Your task to perform on an android device: uninstall "Google Keep" Image 0: 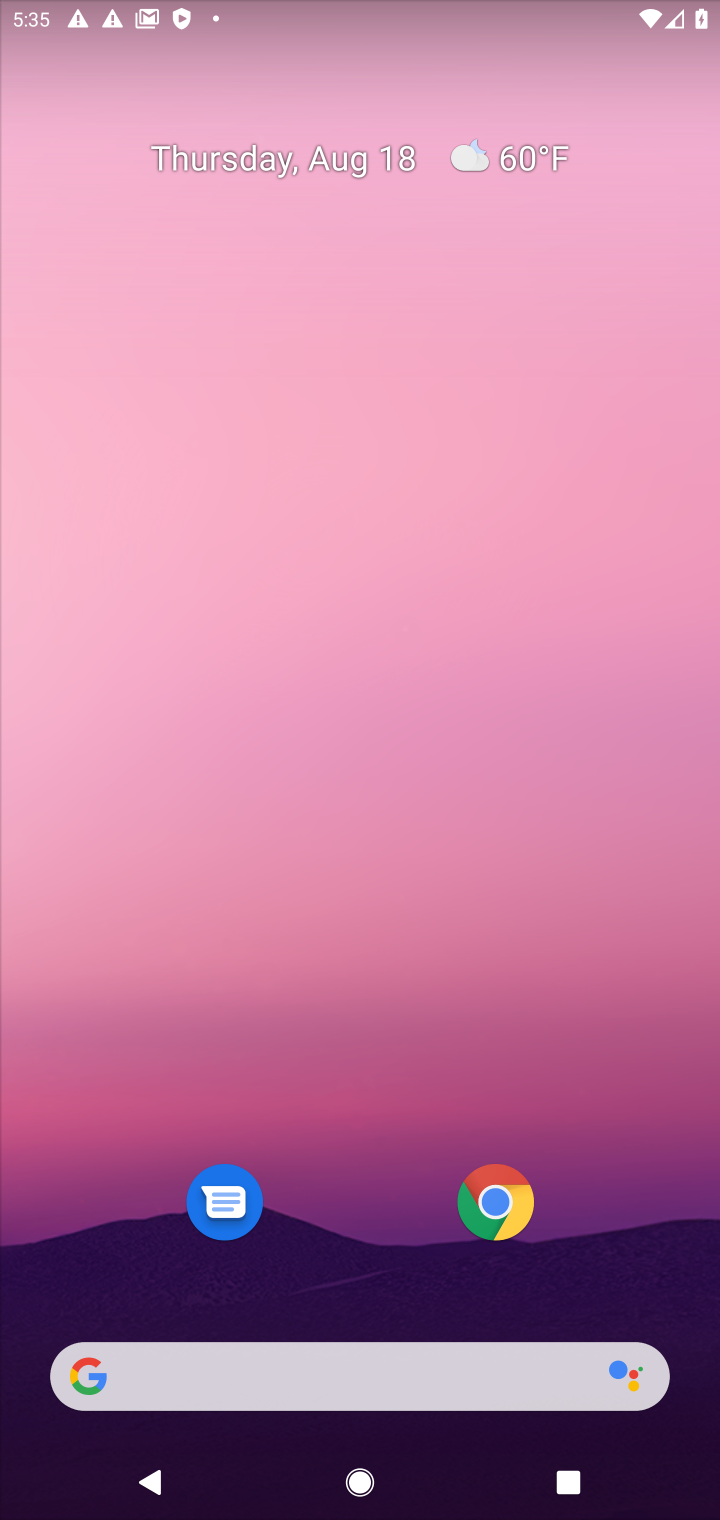
Step 0: drag from (294, 1409) to (306, 98)
Your task to perform on an android device: uninstall "Google Keep" Image 1: 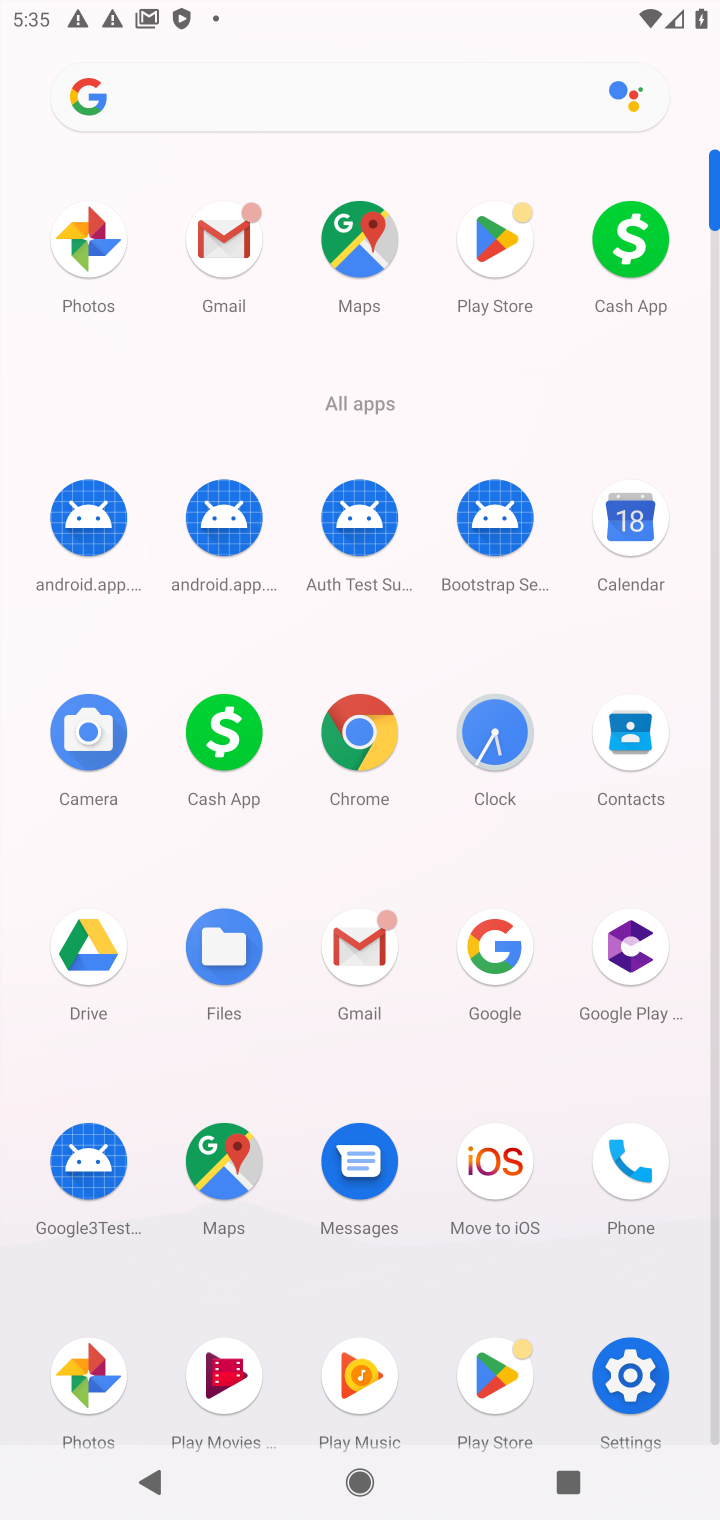
Step 1: click (460, 255)
Your task to perform on an android device: uninstall "Google Keep" Image 2: 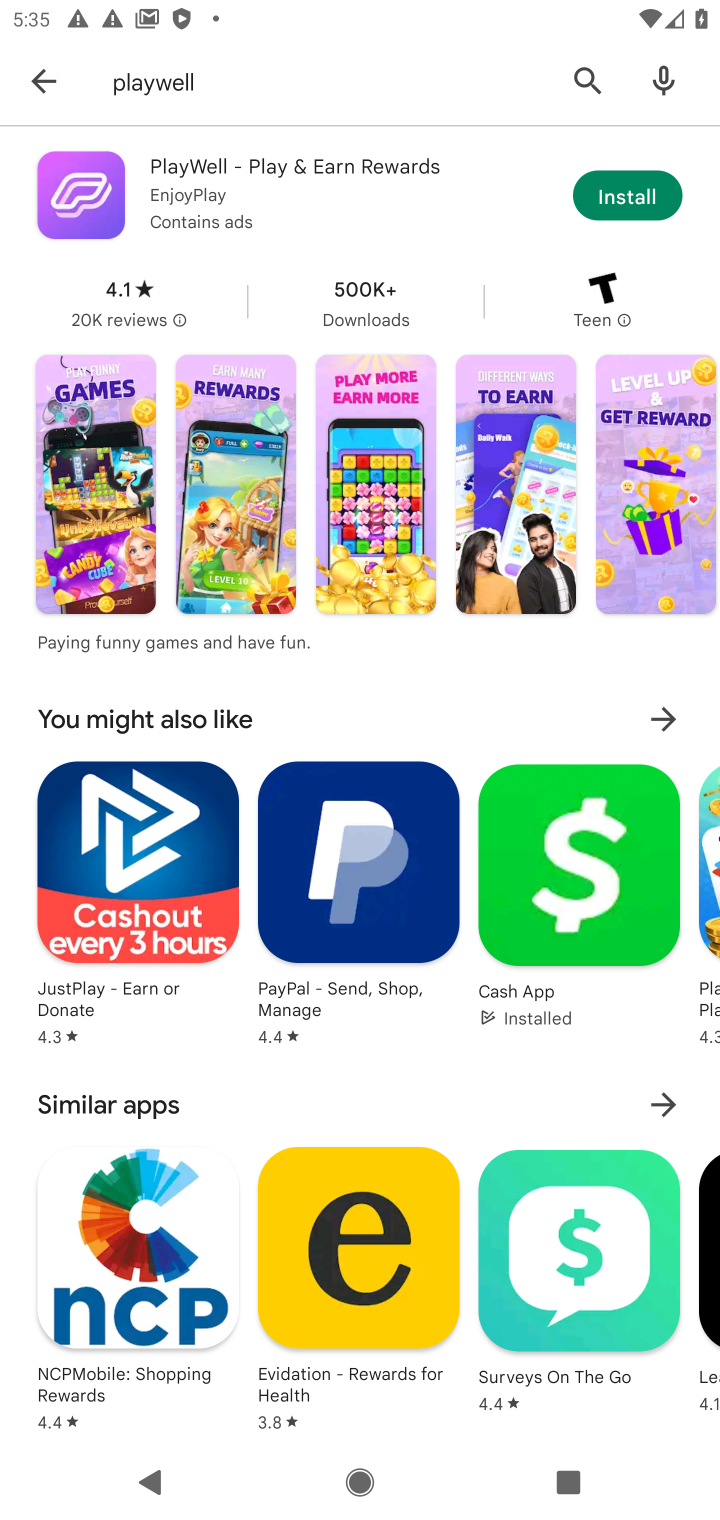
Step 2: click (592, 92)
Your task to perform on an android device: uninstall "Google Keep" Image 3: 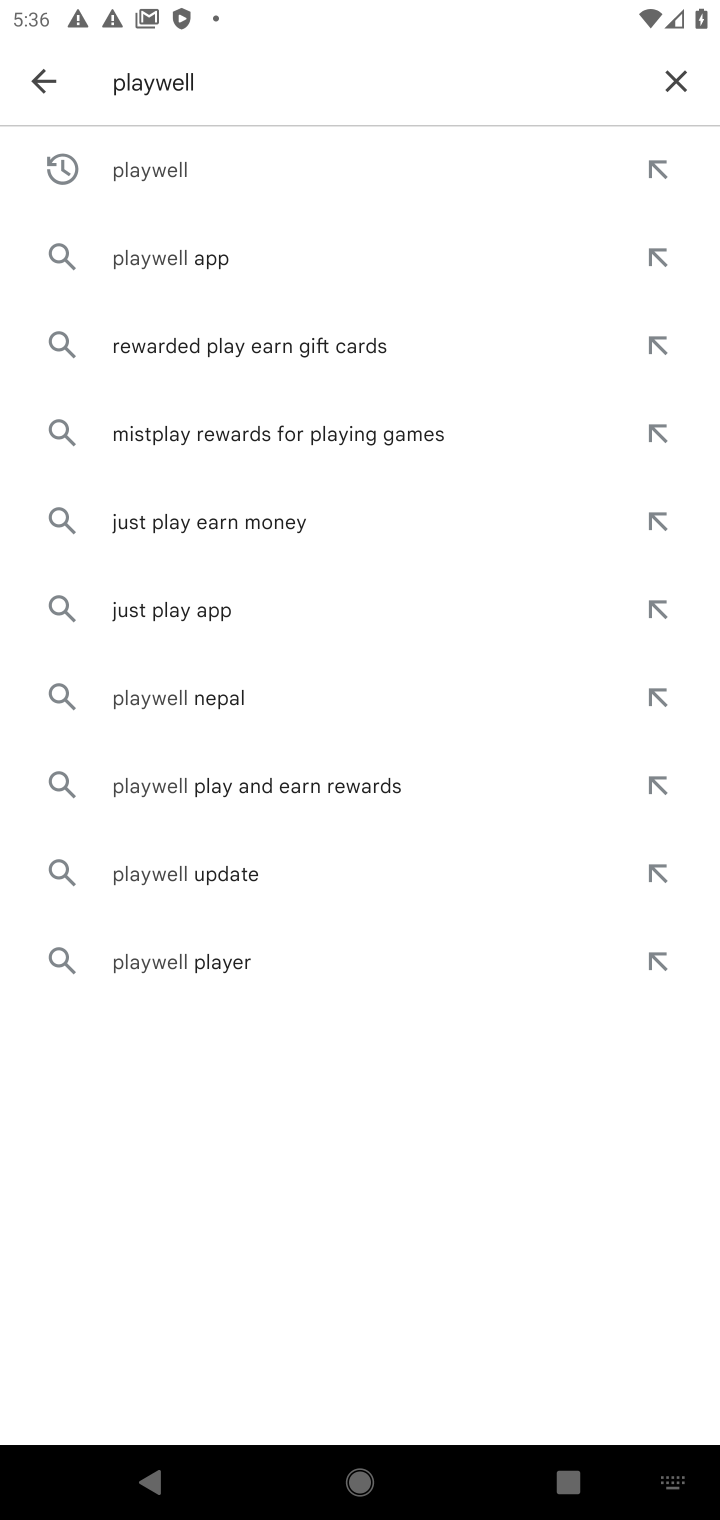
Step 3: click (681, 83)
Your task to perform on an android device: uninstall "Google Keep" Image 4: 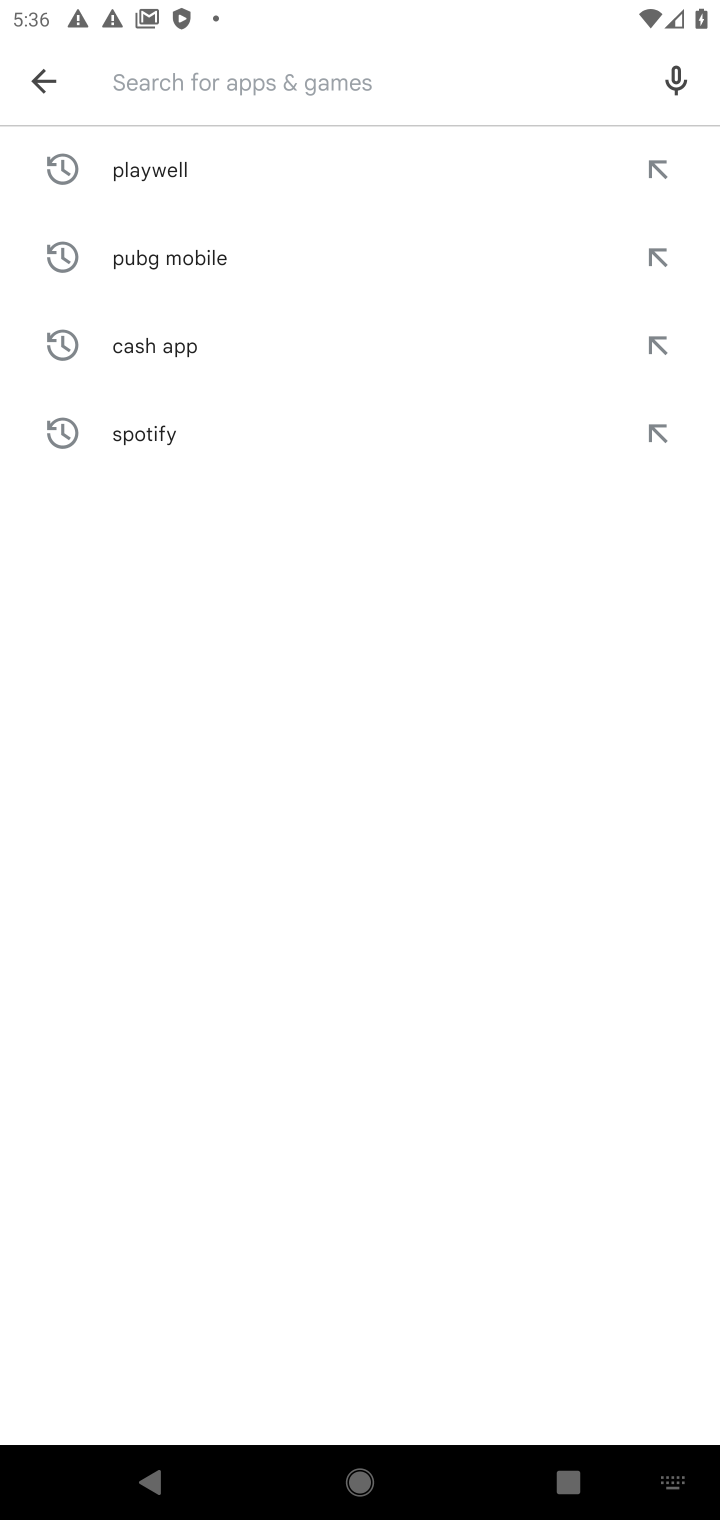
Step 4: type "google keep"
Your task to perform on an android device: uninstall "Google Keep" Image 5: 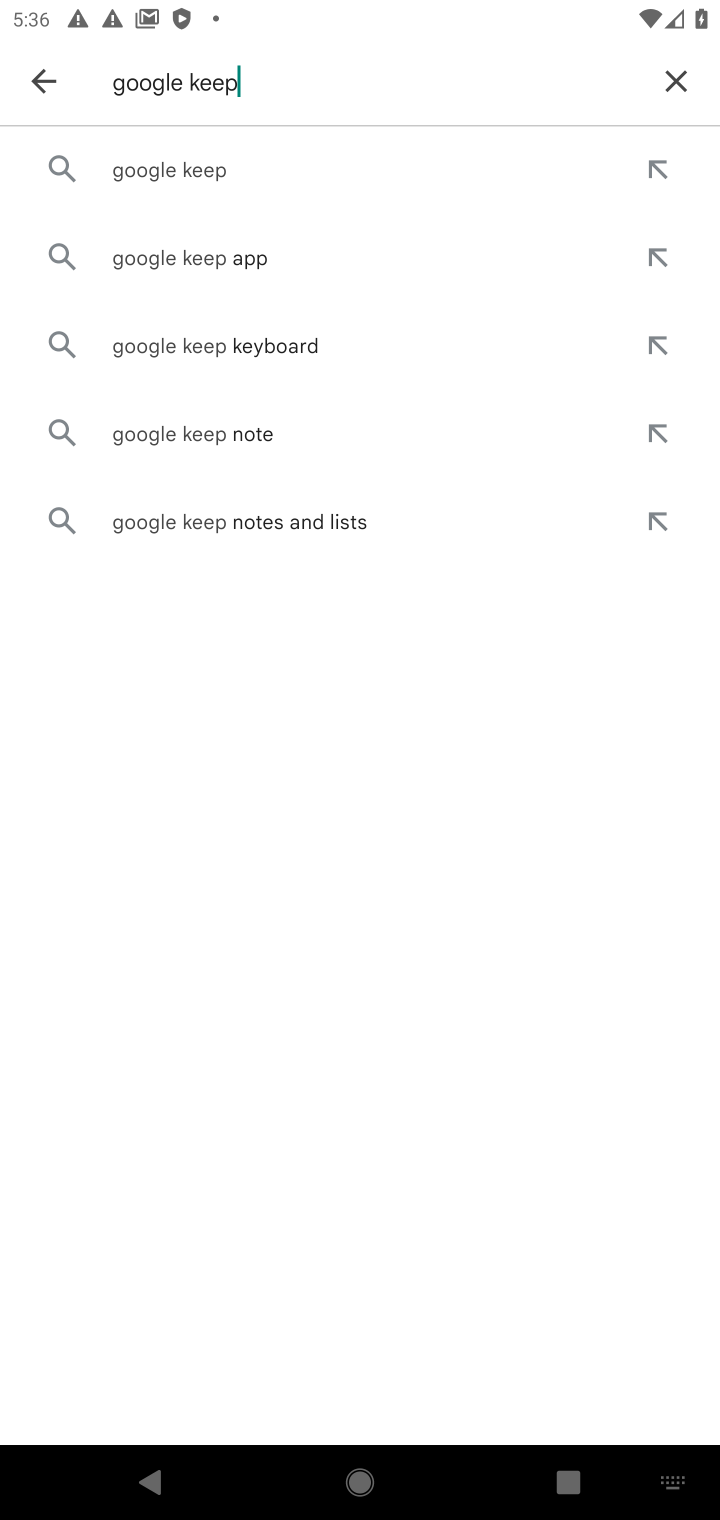
Step 5: click (208, 179)
Your task to perform on an android device: uninstall "Google Keep" Image 6: 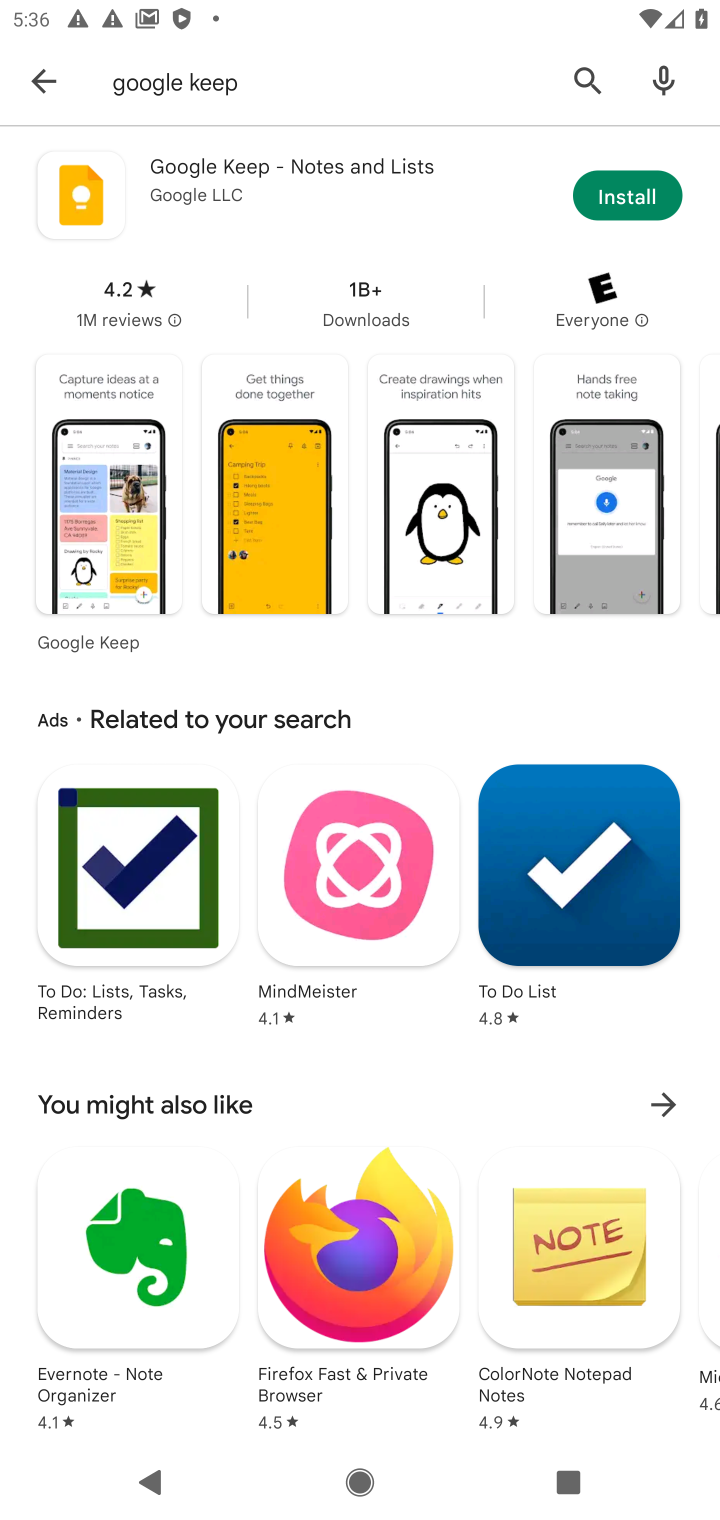
Step 6: task complete